Your task to perform on an android device: Search for vegetarian restaurants on Maps Image 0: 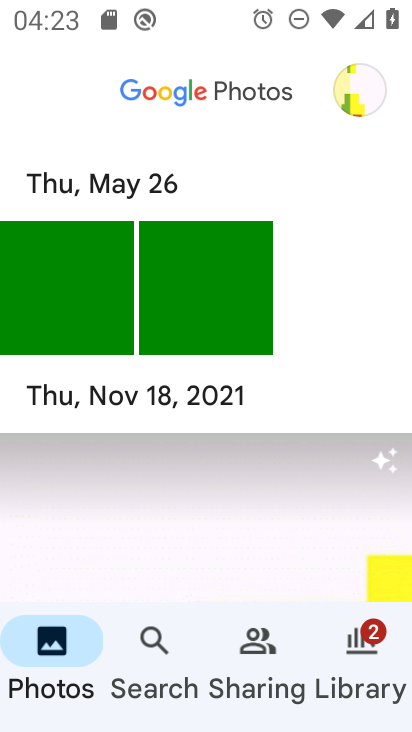
Step 0: press home button
Your task to perform on an android device: Search for vegetarian restaurants on Maps Image 1: 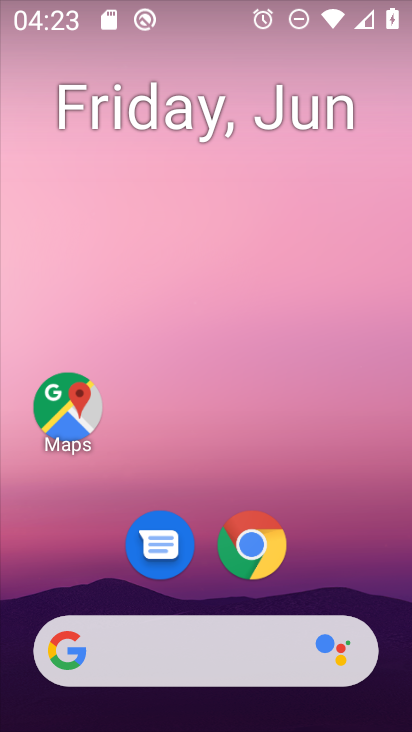
Step 1: click (80, 408)
Your task to perform on an android device: Search for vegetarian restaurants on Maps Image 2: 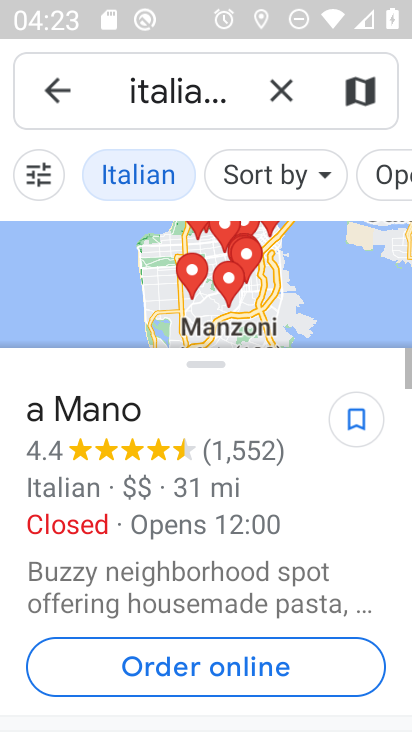
Step 2: click (270, 103)
Your task to perform on an android device: Search for vegetarian restaurants on Maps Image 3: 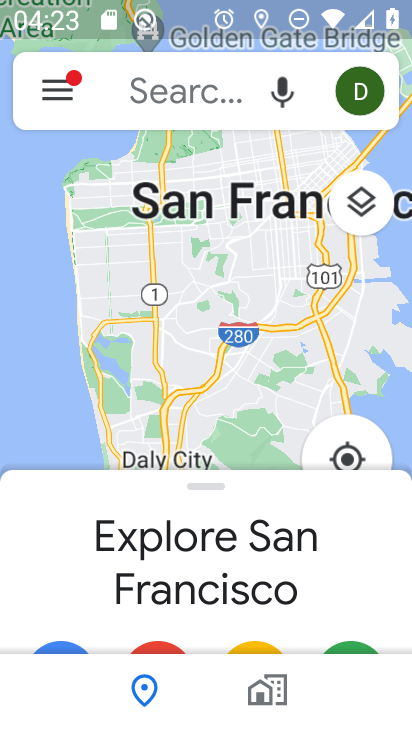
Step 3: click (142, 104)
Your task to perform on an android device: Search for vegetarian restaurants on Maps Image 4: 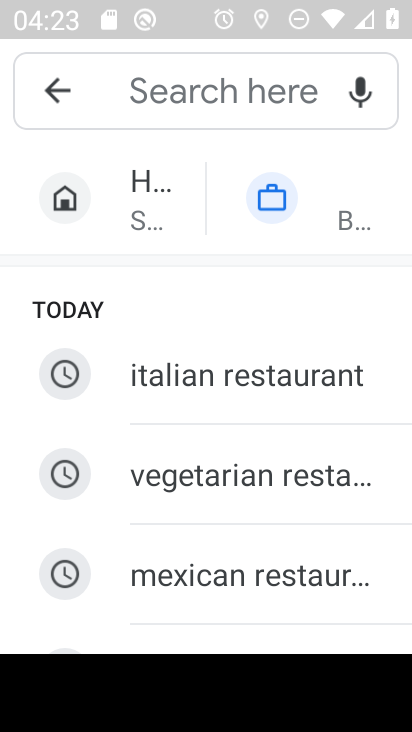
Step 4: type "vegetarian restaurants"
Your task to perform on an android device: Search for vegetarian restaurants on Maps Image 5: 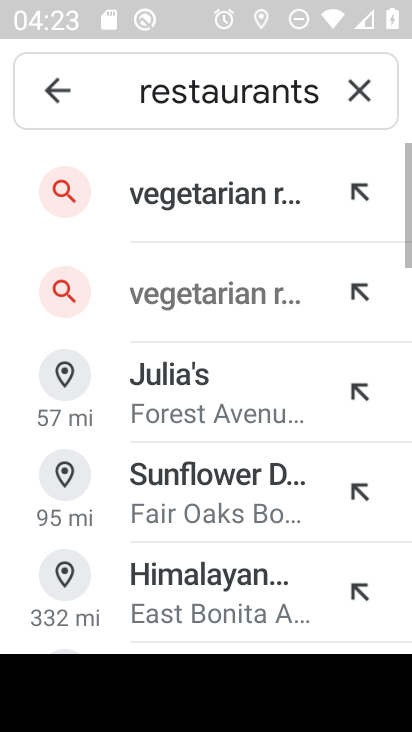
Step 5: click (175, 214)
Your task to perform on an android device: Search for vegetarian restaurants on Maps Image 6: 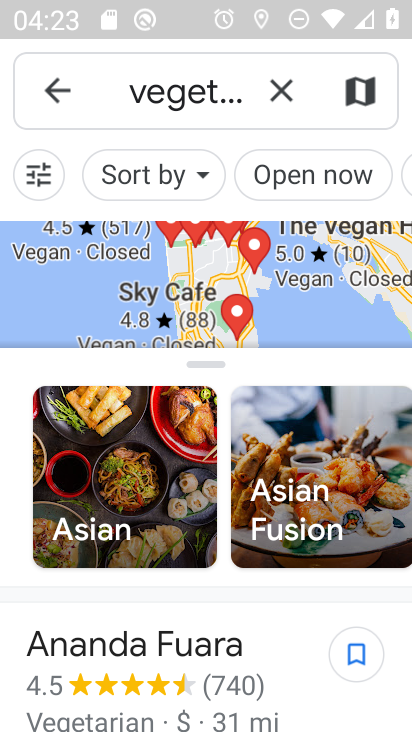
Step 6: task complete